Your task to perform on an android device: Search for Italian restaurants on Maps Image 0: 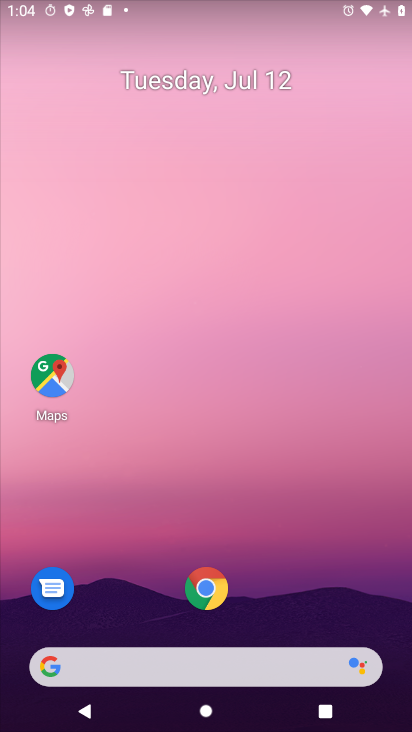
Step 0: click (46, 379)
Your task to perform on an android device: Search for Italian restaurants on Maps Image 1: 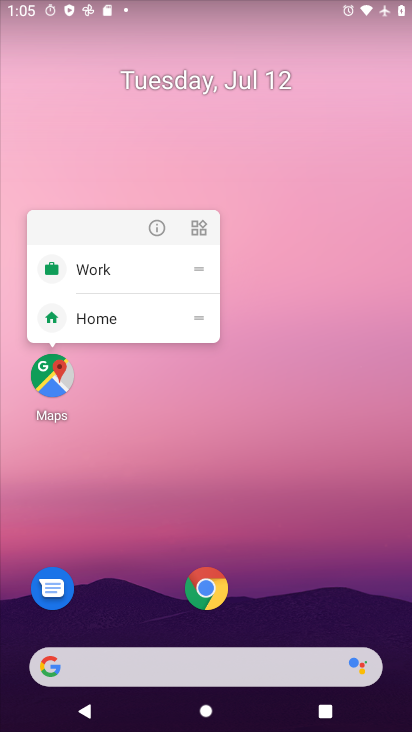
Step 1: click (37, 375)
Your task to perform on an android device: Search for Italian restaurants on Maps Image 2: 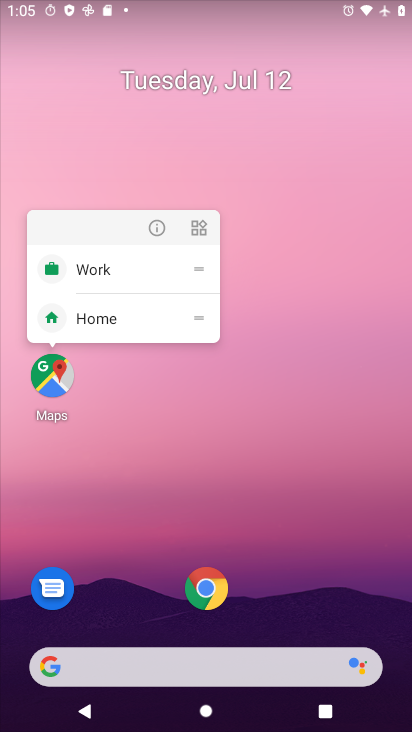
Step 2: click (46, 383)
Your task to perform on an android device: Search for Italian restaurants on Maps Image 3: 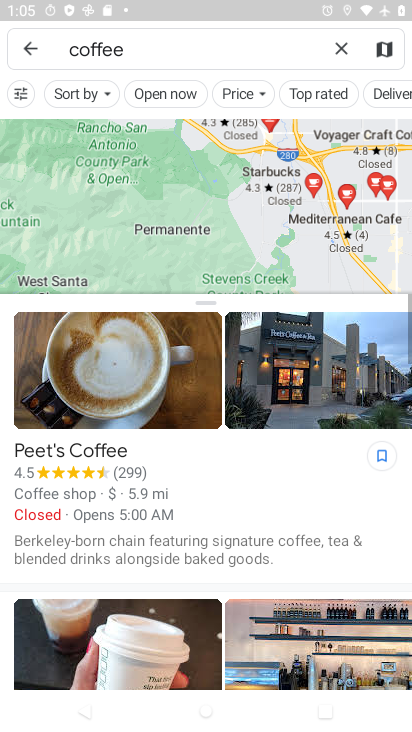
Step 3: click (339, 48)
Your task to perform on an android device: Search for Italian restaurants on Maps Image 4: 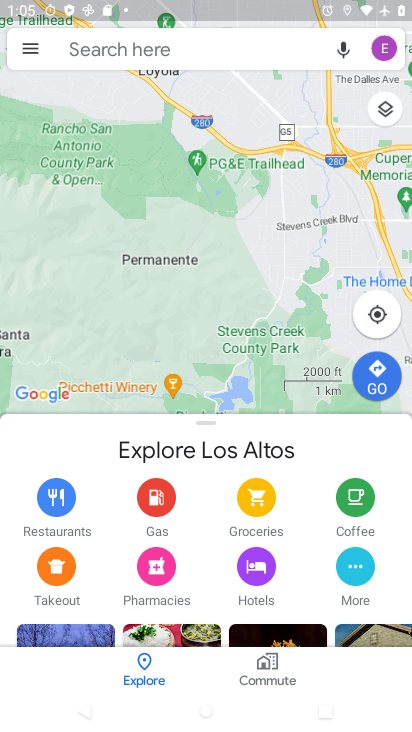
Step 4: click (182, 46)
Your task to perform on an android device: Search for Italian restaurants on Maps Image 5: 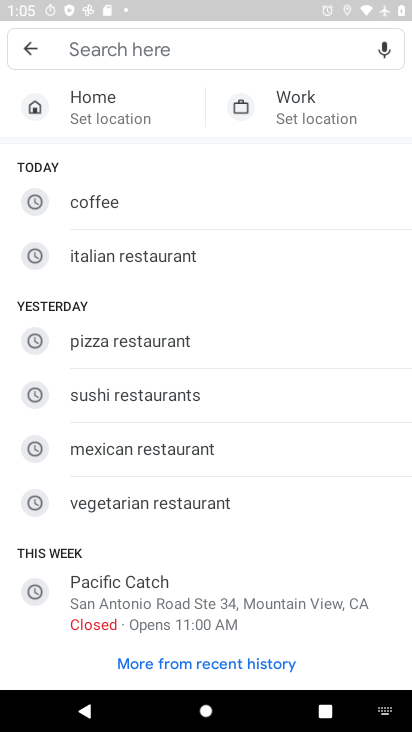
Step 5: click (133, 256)
Your task to perform on an android device: Search for Italian restaurants on Maps Image 6: 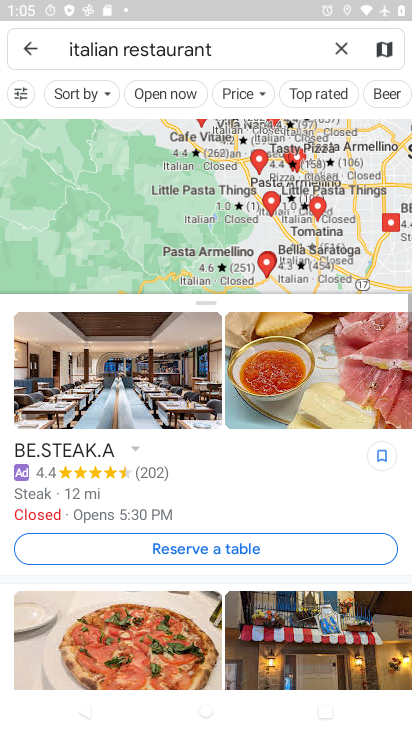
Step 6: task complete